Your task to perform on an android device: Open settings on Google Maps Image 0: 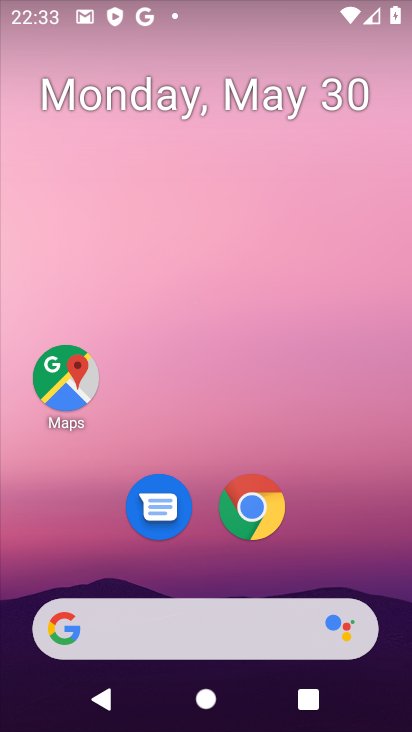
Step 0: drag from (386, 568) to (377, 217)
Your task to perform on an android device: Open settings on Google Maps Image 1: 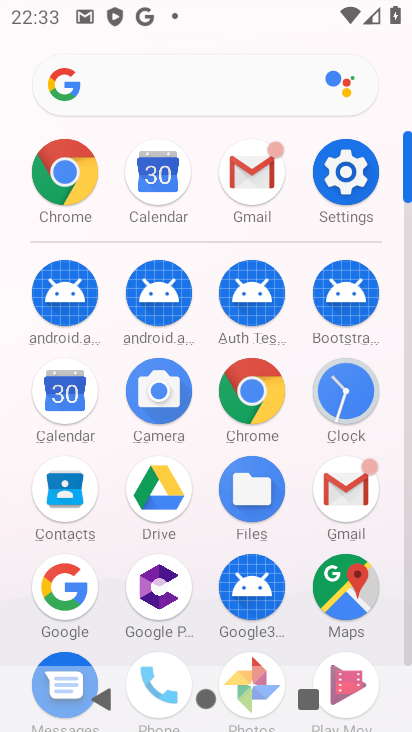
Step 1: click (350, 606)
Your task to perform on an android device: Open settings on Google Maps Image 2: 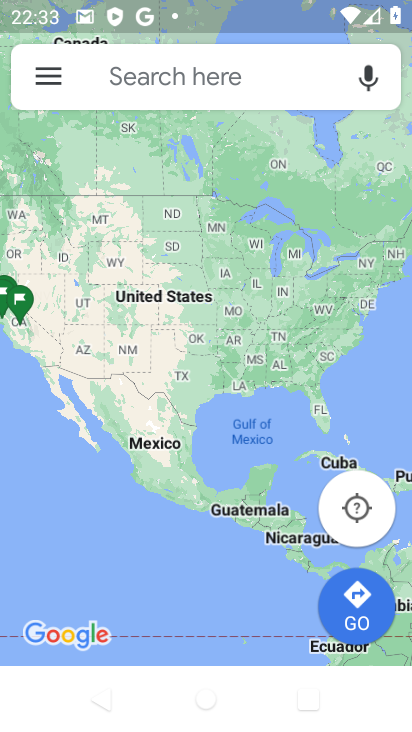
Step 2: click (49, 76)
Your task to perform on an android device: Open settings on Google Maps Image 3: 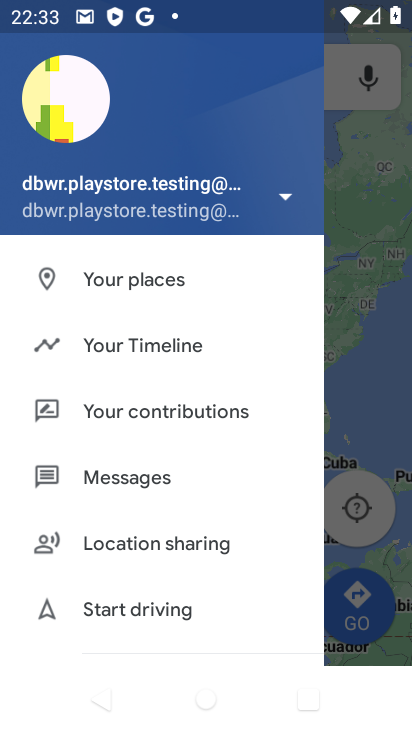
Step 3: drag from (259, 600) to (251, 480)
Your task to perform on an android device: Open settings on Google Maps Image 4: 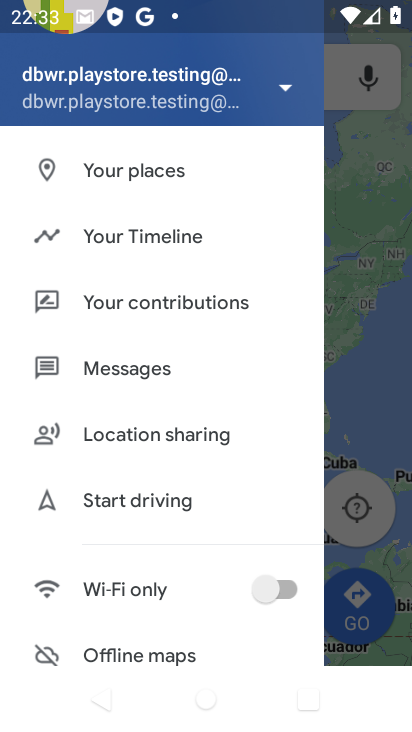
Step 4: drag from (215, 631) to (235, 483)
Your task to perform on an android device: Open settings on Google Maps Image 5: 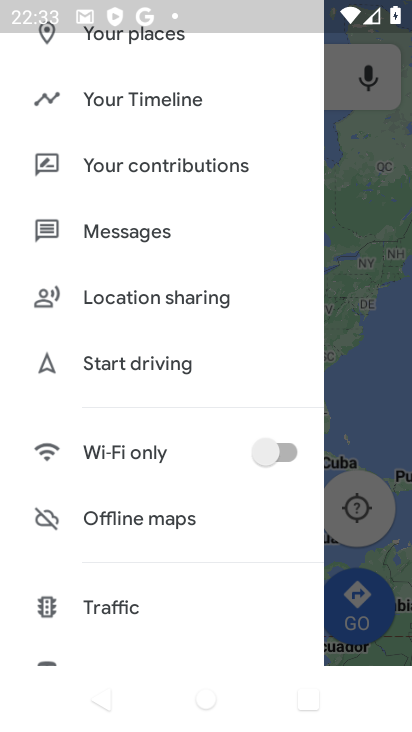
Step 5: drag from (211, 615) to (231, 458)
Your task to perform on an android device: Open settings on Google Maps Image 6: 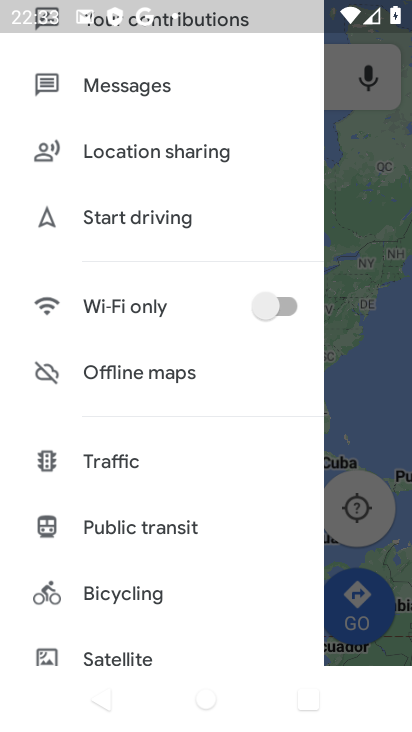
Step 6: drag from (230, 605) to (240, 418)
Your task to perform on an android device: Open settings on Google Maps Image 7: 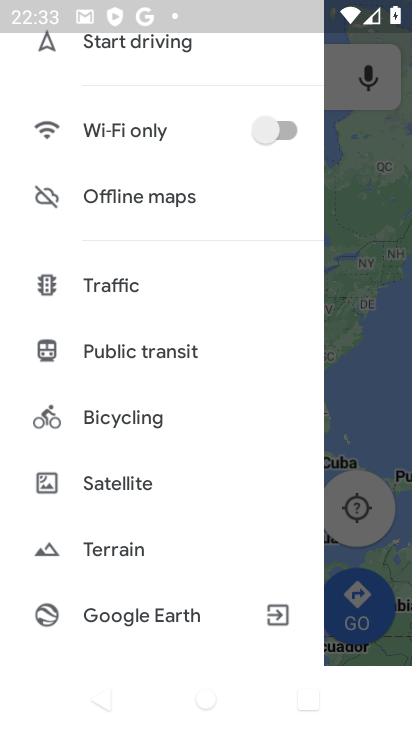
Step 7: drag from (221, 550) to (242, 277)
Your task to perform on an android device: Open settings on Google Maps Image 8: 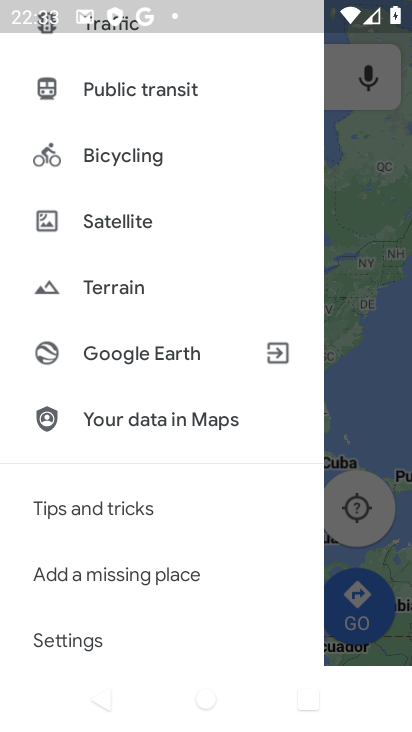
Step 8: drag from (252, 519) to (234, 349)
Your task to perform on an android device: Open settings on Google Maps Image 9: 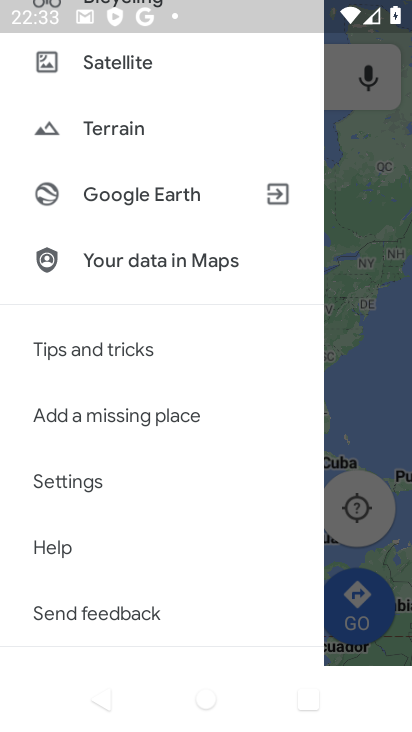
Step 9: click (126, 495)
Your task to perform on an android device: Open settings on Google Maps Image 10: 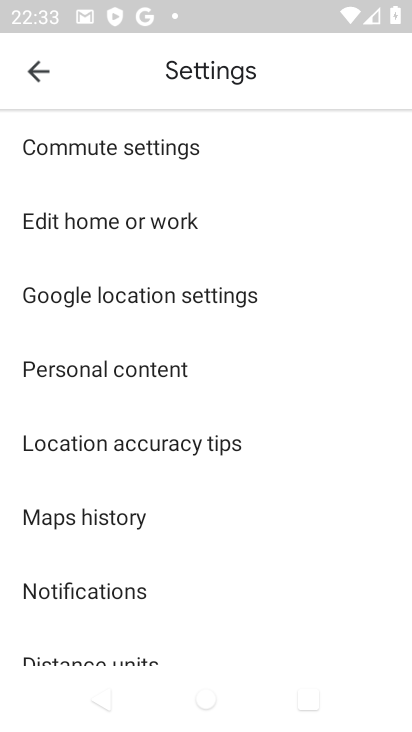
Step 10: task complete